Your task to perform on an android device: turn pop-ups on in chrome Image 0: 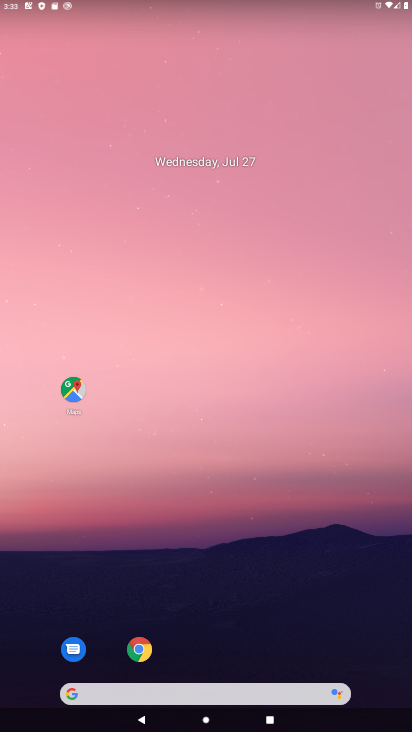
Step 0: click (139, 649)
Your task to perform on an android device: turn pop-ups on in chrome Image 1: 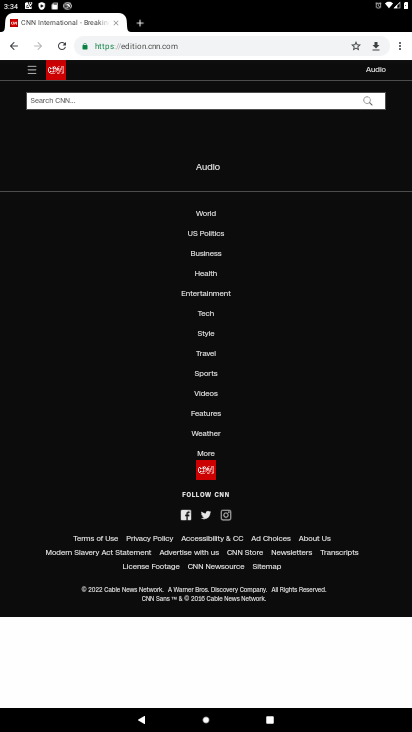
Step 1: click (400, 49)
Your task to perform on an android device: turn pop-ups on in chrome Image 2: 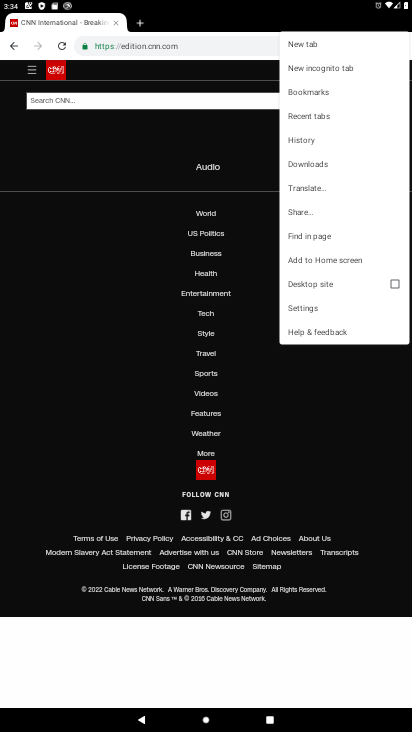
Step 2: click (297, 303)
Your task to perform on an android device: turn pop-ups on in chrome Image 3: 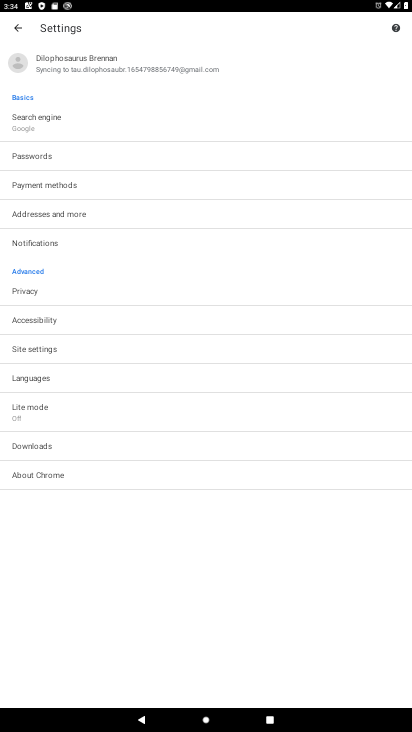
Step 3: click (34, 344)
Your task to perform on an android device: turn pop-ups on in chrome Image 4: 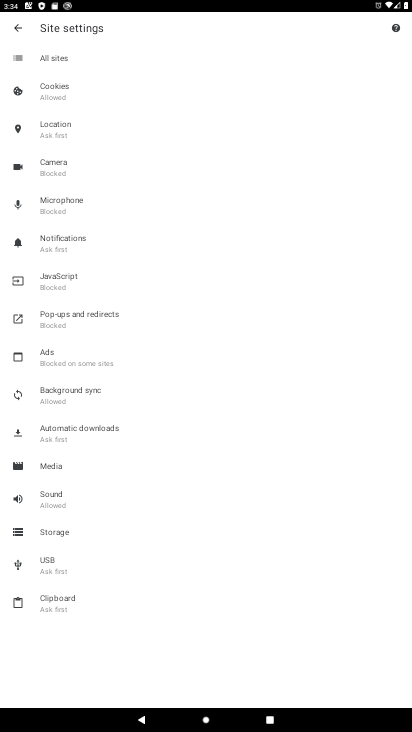
Step 4: click (62, 313)
Your task to perform on an android device: turn pop-ups on in chrome Image 5: 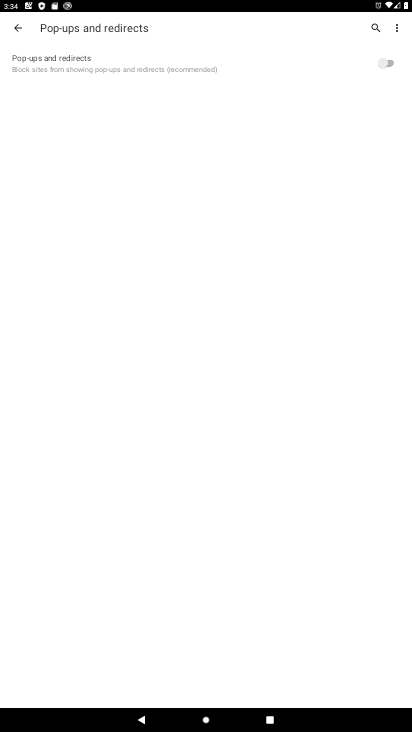
Step 5: click (392, 65)
Your task to perform on an android device: turn pop-ups on in chrome Image 6: 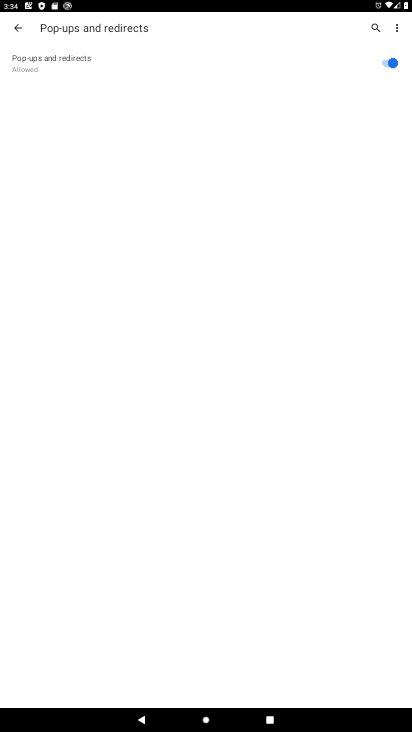
Step 6: task complete